Your task to perform on an android device: set an alarm Image 0: 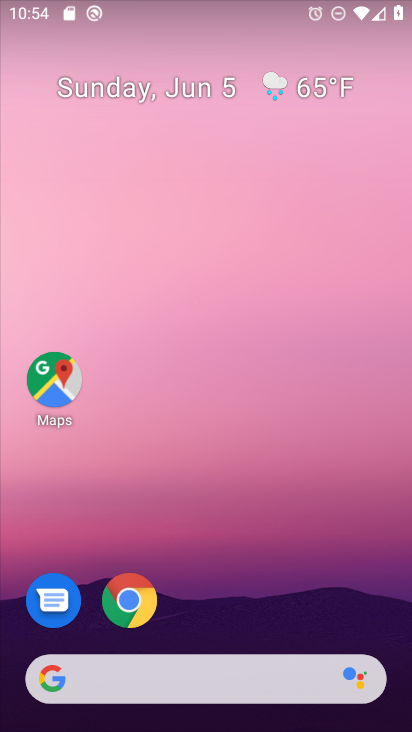
Step 0: drag from (395, 623) to (287, 67)
Your task to perform on an android device: set an alarm Image 1: 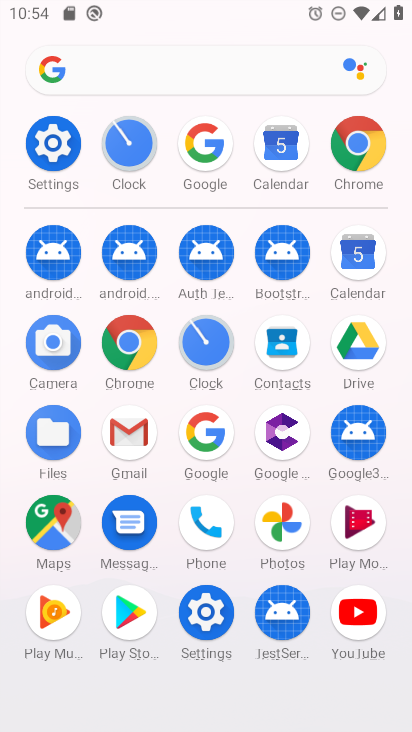
Step 1: click (218, 320)
Your task to perform on an android device: set an alarm Image 2: 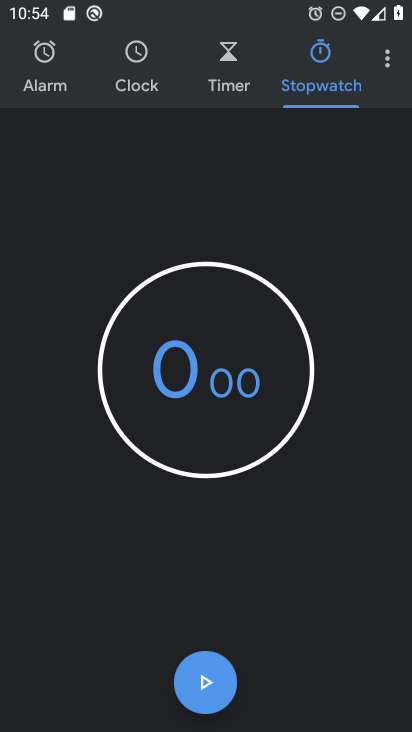
Step 2: click (56, 62)
Your task to perform on an android device: set an alarm Image 3: 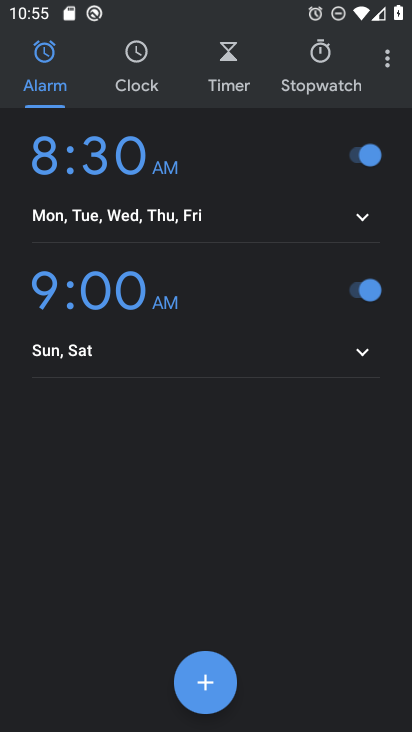
Step 3: click (200, 676)
Your task to perform on an android device: set an alarm Image 4: 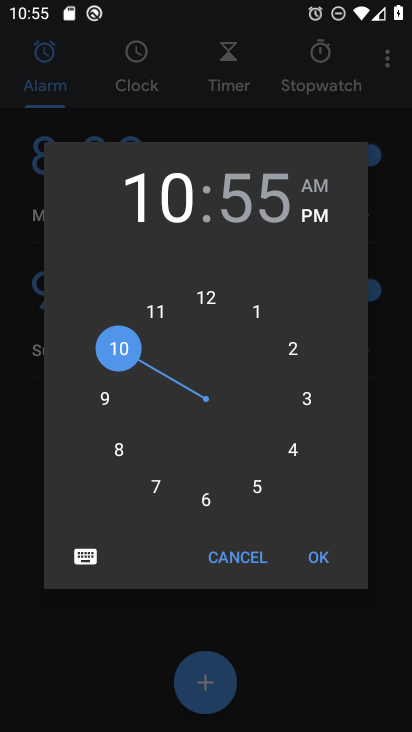
Step 4: click (320, 554)
Your task to perform on an android device: set an alarm Image 5: 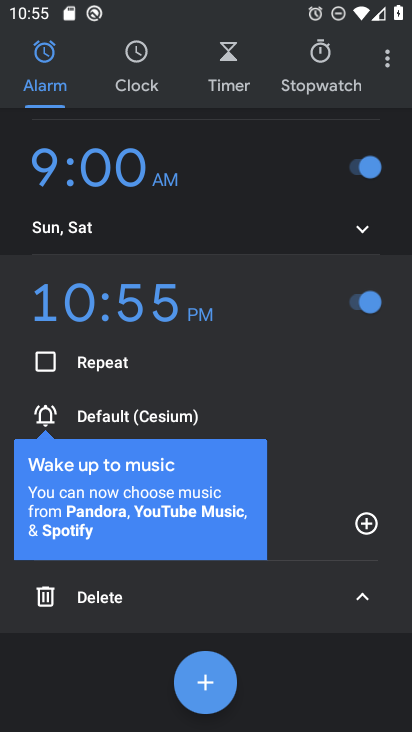
Step 5: click (364, 596)
Your task to perform on an android device: set an alarm Image 6: 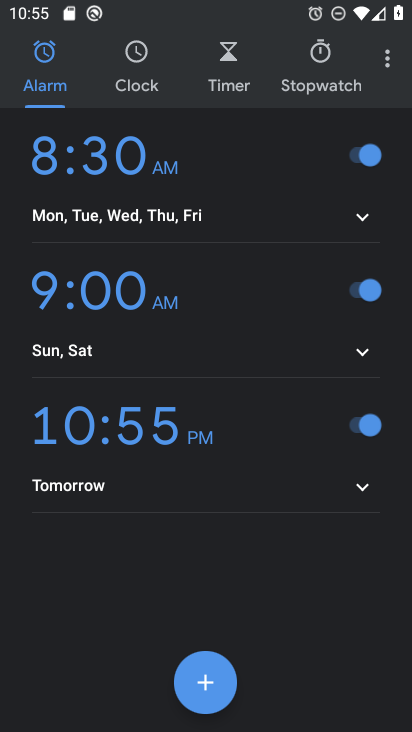
Step 6: task complete